Your task to perform on an android device: check battery use Image 0: 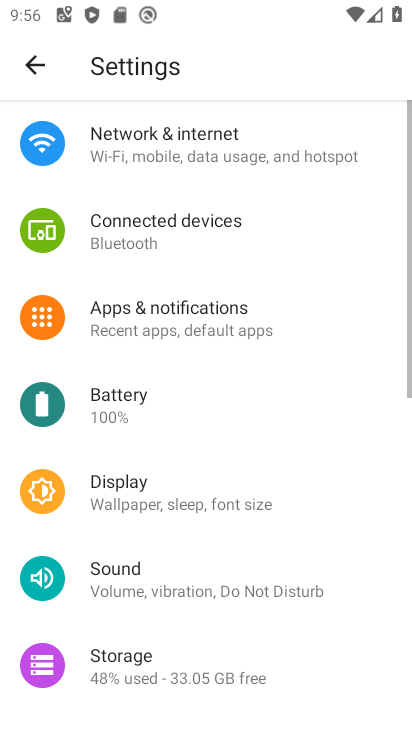
Step 0: click (113, 413)
Your task to perform on an android device: check battery use Image 1: 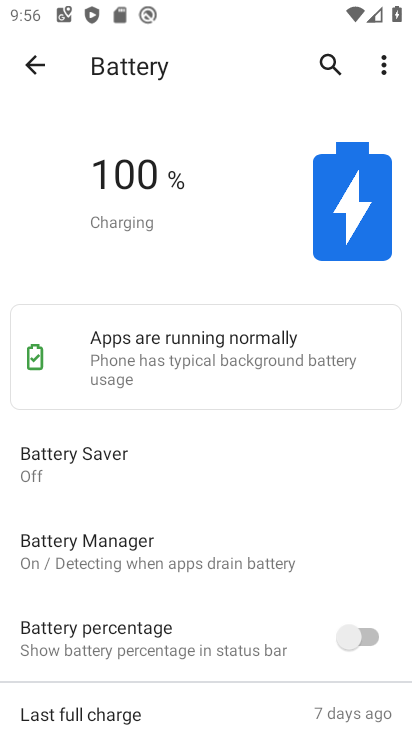
Step 1: task complete